Your task to perform on an android device: turn off smart reply in the gmail app Image 0: 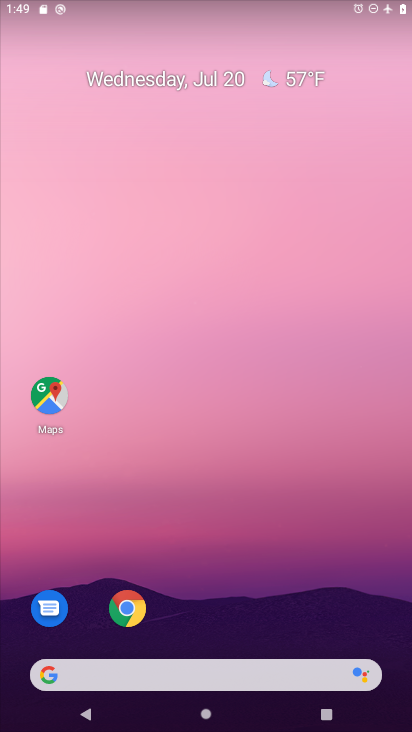
Step 0: drag from (158, 721) to (134, 80)
Your task to perform on an android device: turn off smart reply in the gmail app Image 1: 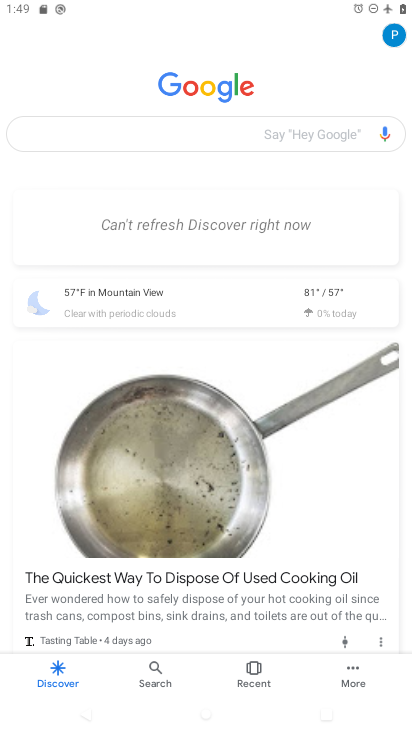
Step 1: press home button
Your task to perform on an android device: turn off smart reply in the gmail app Image 2: 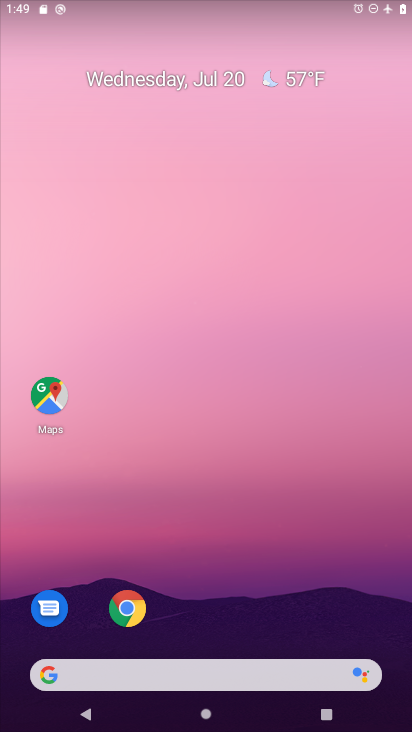
Step 2: drag from (271, 710) to (295, 42)
Your task to perform on an android device: turn off smart reply in the gmail app Image 3: 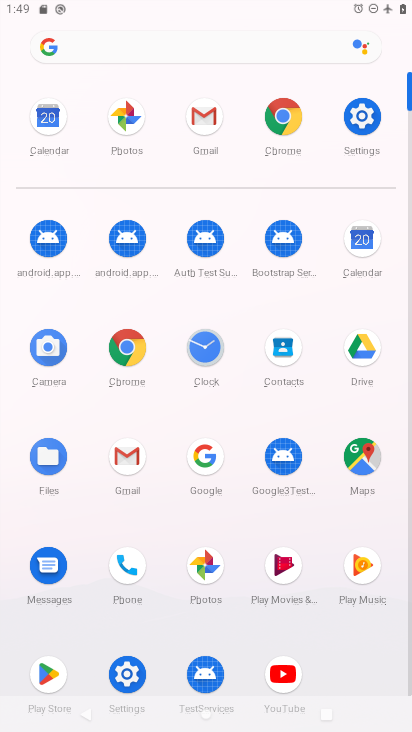
Step 3: click (192, 115)
Your task to perform on an android device: turn off smart reply in the gmail app Image 4: 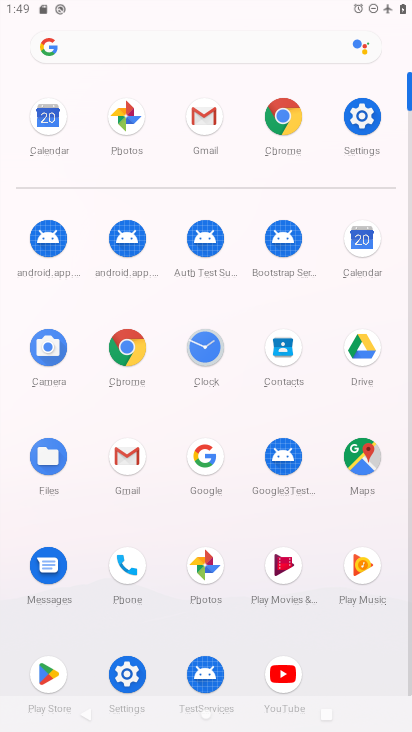
Step 4: click (192, 115)
Your task to perform on an android device: turn off smart reply in the gmail app Image 5: 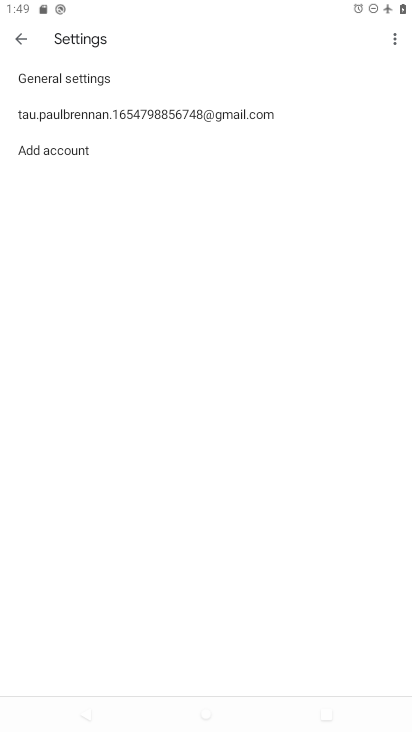
Step 5: click (102, 107)
Your task to perform on an android device: turn off smart reply in the gmail app Image 6: 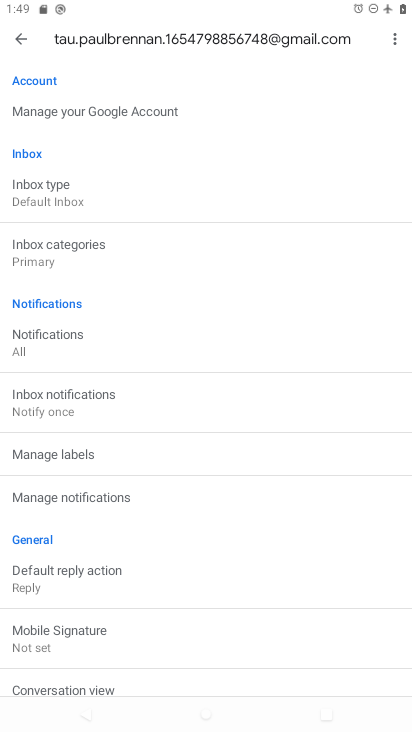
Step 6: drag from (236, 680) to (159, 276)
Your task to perform on an android device: turn off smart reply in the gmail app Image 7: 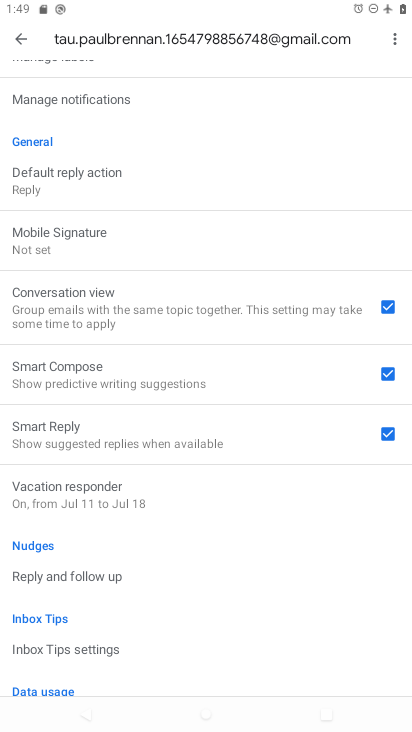
Step 7: click (386, 436)
Your task to perform on an android device: turn off smart reply in the gmail app Image 8: 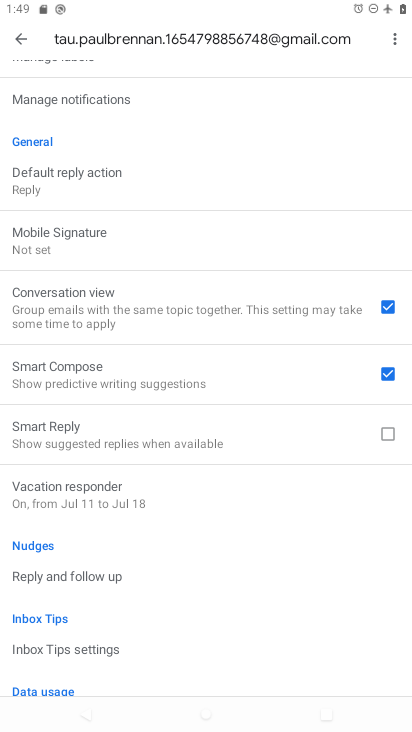
Step 8: task complete